Your task to perform on an android device: Do I have any events this weekend? Image 0: 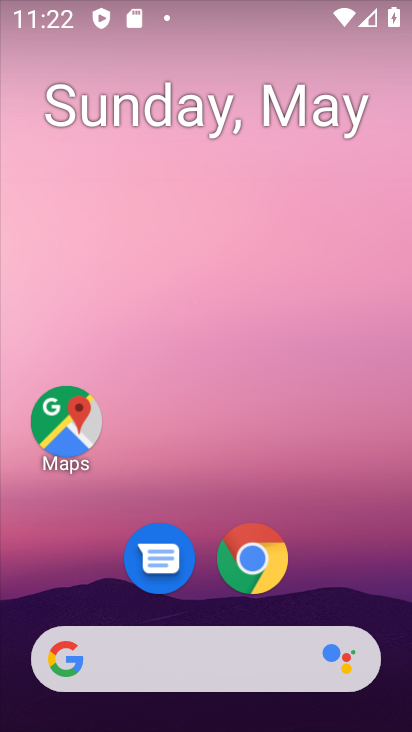
Step 0: drag from (399, 530) to (402, 110)
Your task to perform on an android device: Do I have any events this weekend? Image 1: 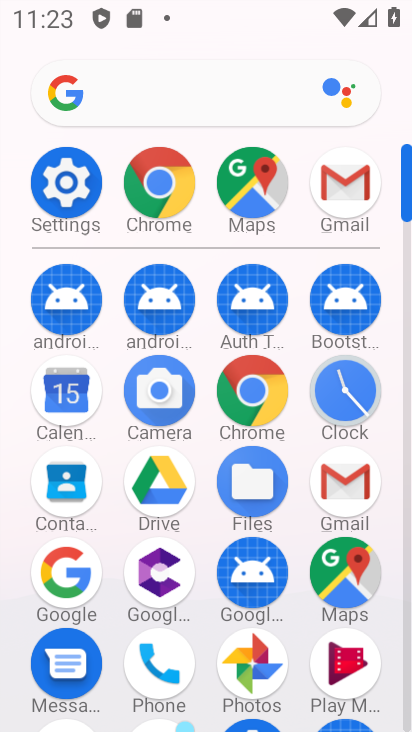
Step 1: click (62, 397)
Your task to perform on an android device: Do I have any events this weekend? Image 2: 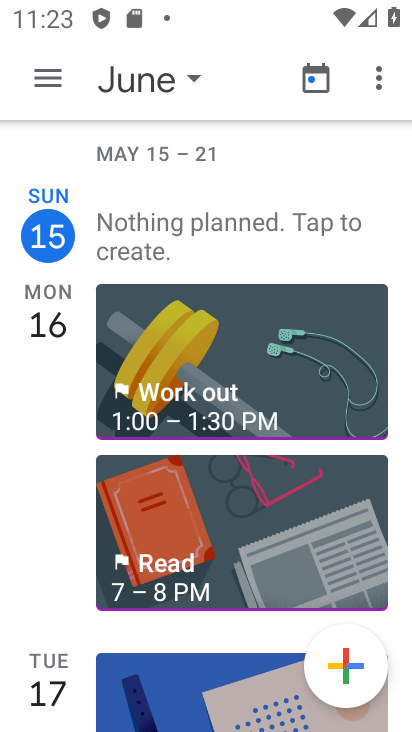
Step 2: drag from (258, 552) to (281, 364)
Your task to perform on an android device: Do I have any events this weekend? Image 3: 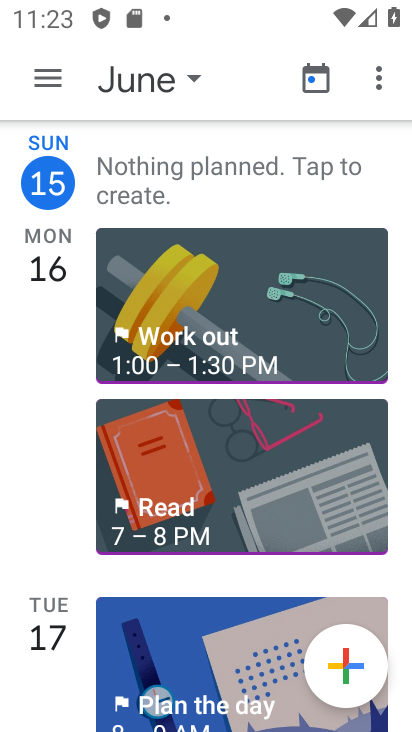
Step 3: drag from (233, 637) to (258, 368)
Your task to perform on an android device: Do I have any events this weekend? Image 4: 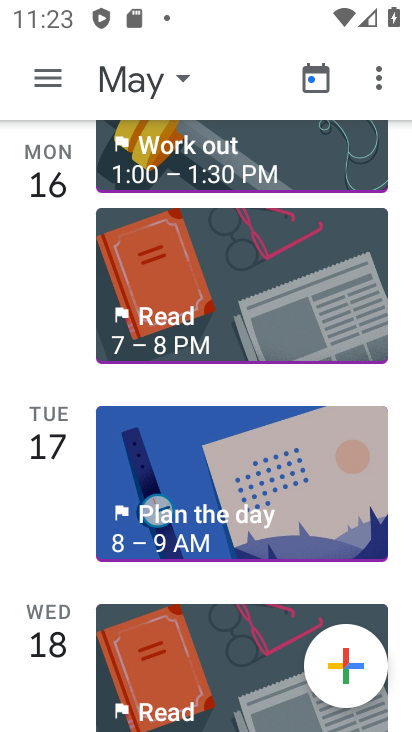
Step 4: click (186, 77)
Your task to perform on an android device: Do I have any events this weekend? Image 5: 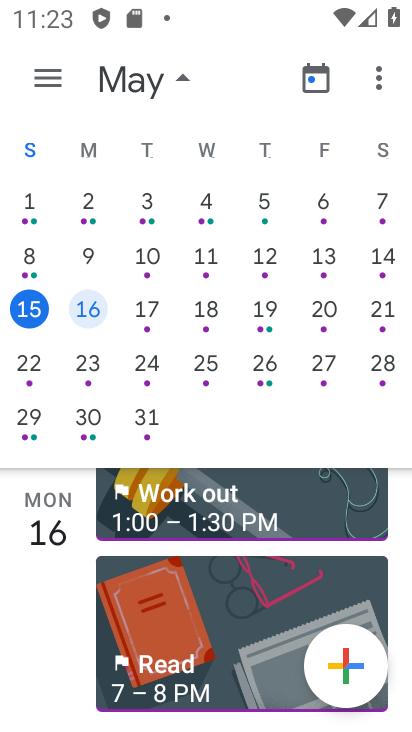
Step 5: click (383, 307)
Your task to perform on an android device: Do I have any events this weekend? Image 6: 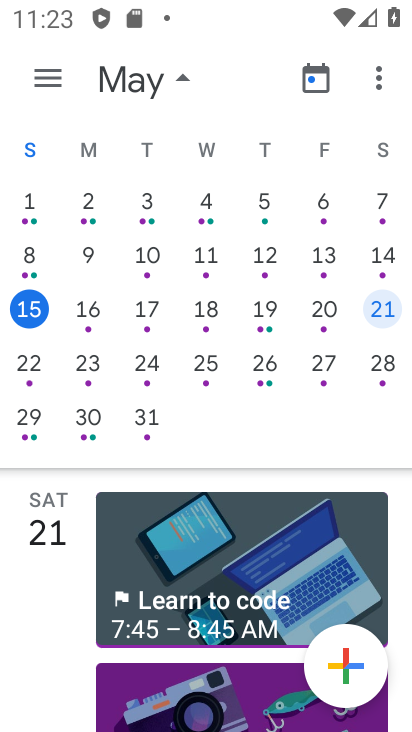
Step 6: drag from (231, 644) to (262, 366)
Your task to perform on an android device: Do I have any events this weekend? Image 7: 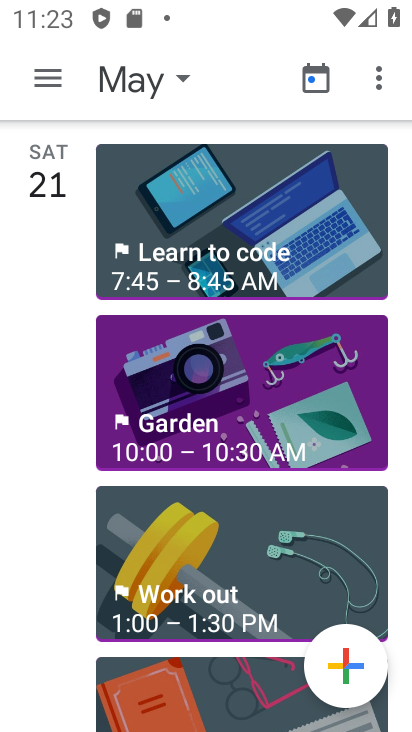
Step 7: click (249, 510)
Your task to perform on an android device: Do I have any events this weekend? Image 8: 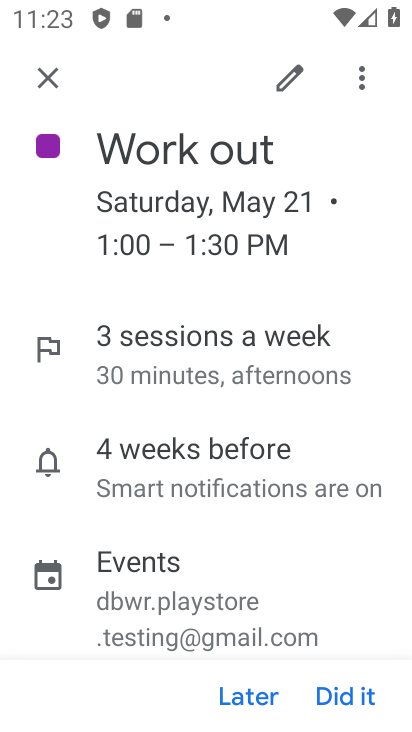
Step 8: task complete